Your task to perform on an android device: allow notifications from all sites in the chrome app Image 0: 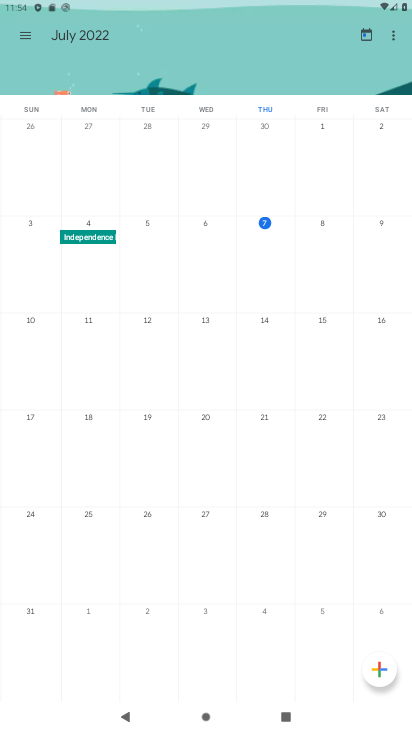
Step 0: press home button
Your task to perform on an android device: allow notifications from all sites in the chrome app Image 1: 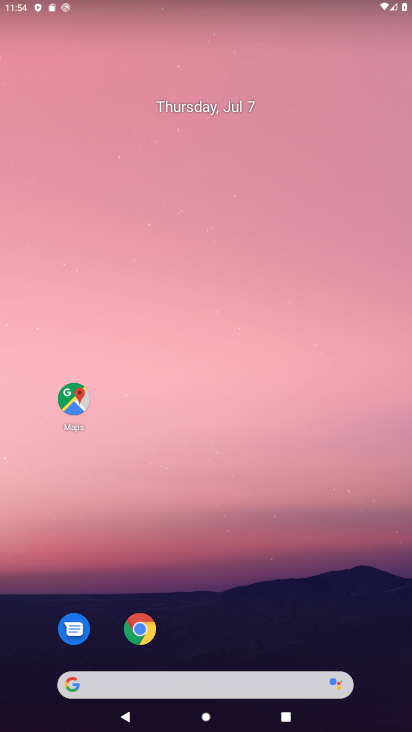
Step 1: click (142, 624)
Your task to perform on an android device: allow notifications from all sites in the chrome app Image 2: 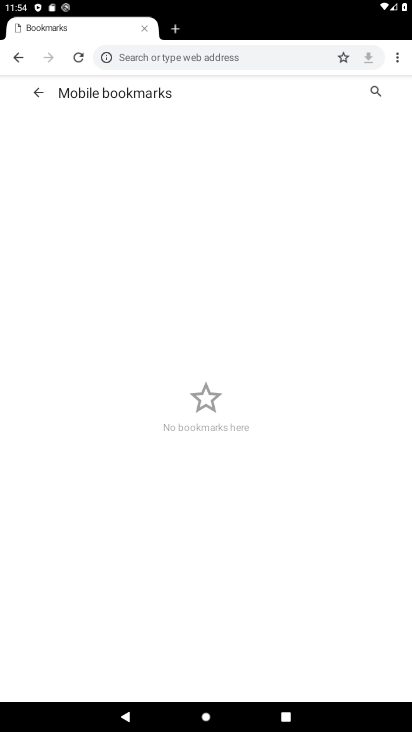
Step 2: click (401, 58)
Your task to perform on an android device: allow notifications from all sites in the chrome app Image 3: 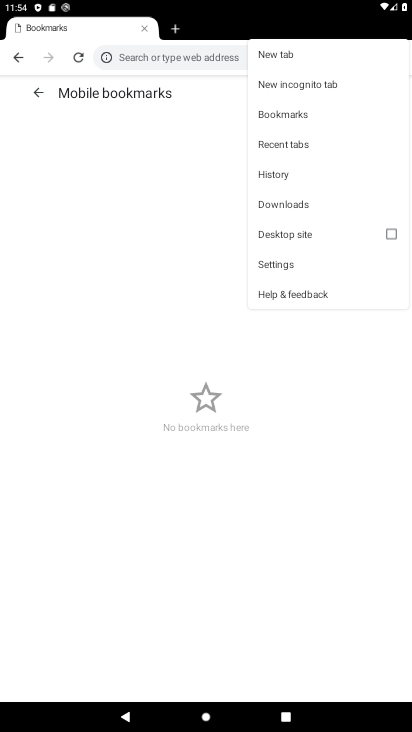
Step 3: click (294, 260)
Your task to perform on an android device: allow notifications from all sites in the chrome app Image 4: 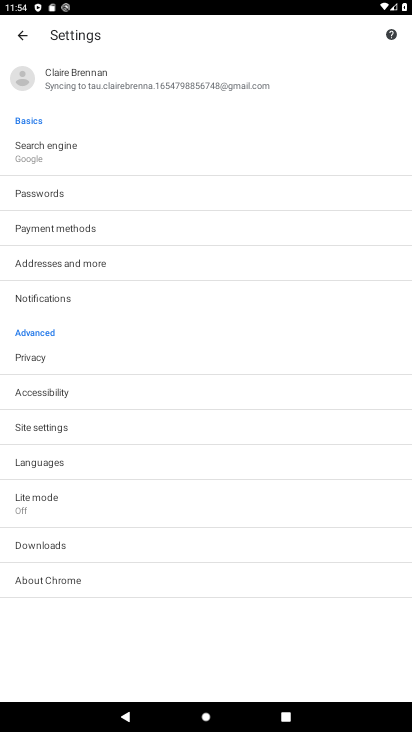
Step 4: click (78, 421)
Your task to perform on an android device: allow notifications from all sites in the chrome app Image 5: 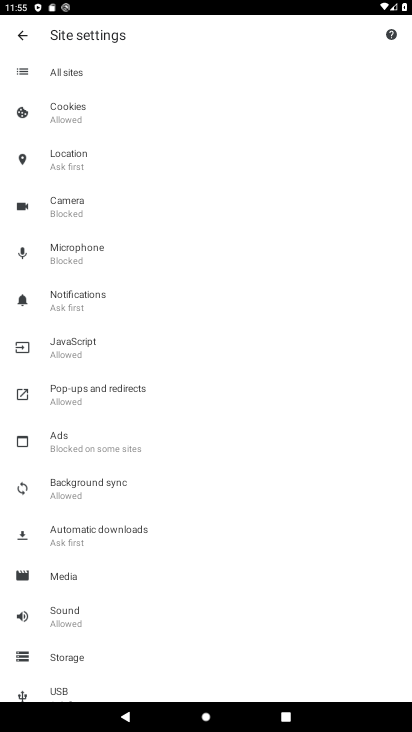
Step 5: click (145, 290)
Your task to perform on an android device: allow notifications from all sites in the chrome app Image 6: 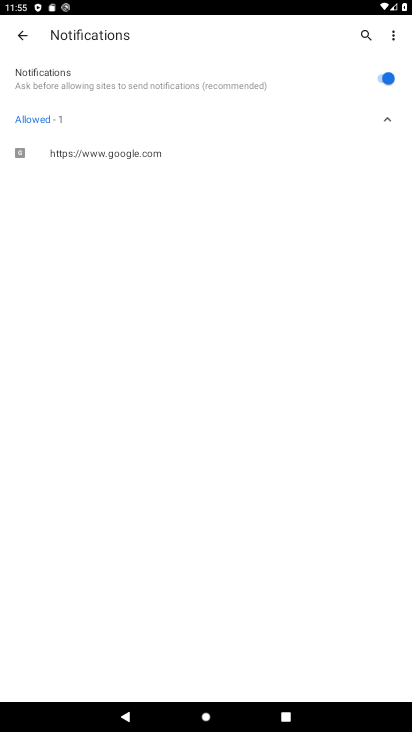
Step 6: task complete